Your task to perform on an android device: Open network settings Image 0: 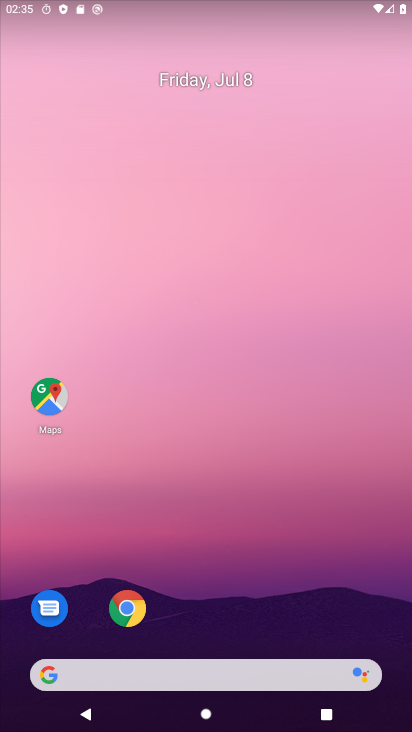
Step 0: drag from (220, 642) to (246, 176)
Your task to perform on an android device: Open network settings Image 1: 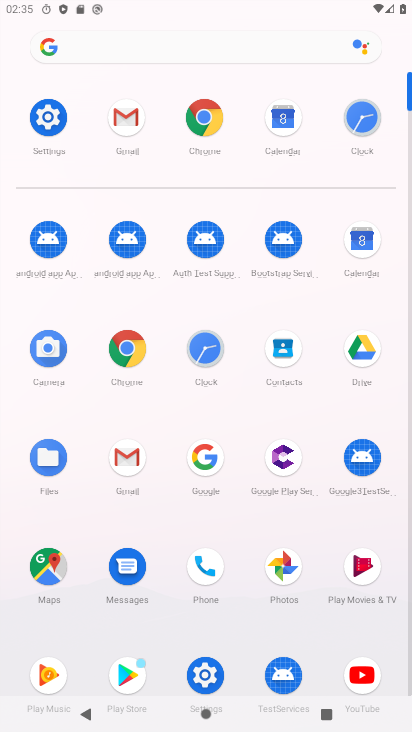
Step 1: click (57, 112)
Your task to perform on an android device: Open network settings Image 2: 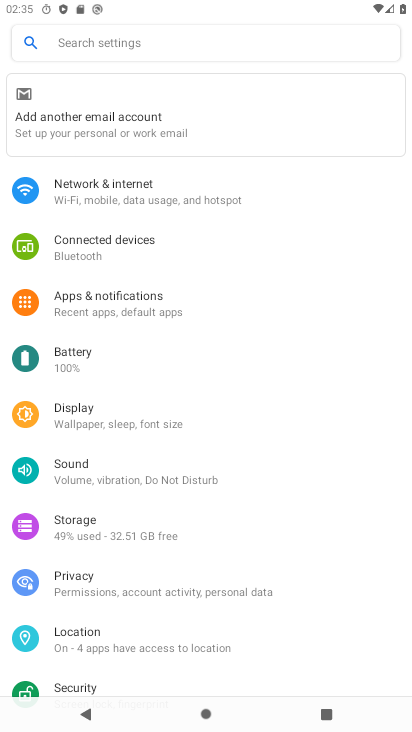
Step 2: click (124, 197)
Your task to perform on an android device: Open network settings Image 3: 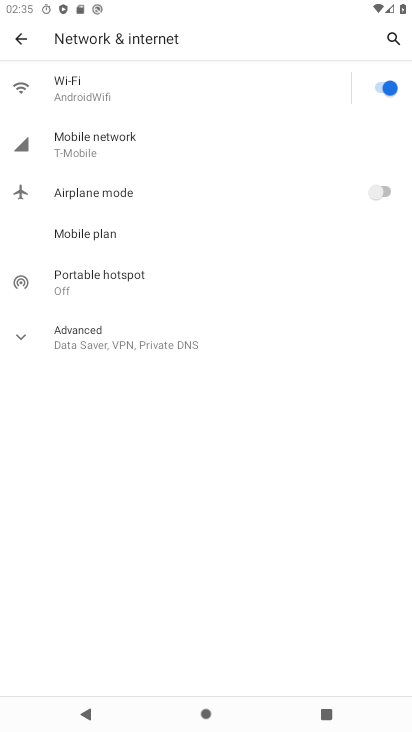
Step 3: click (124, 132)
Your task to perform on an android device: Open network settings Image 4: 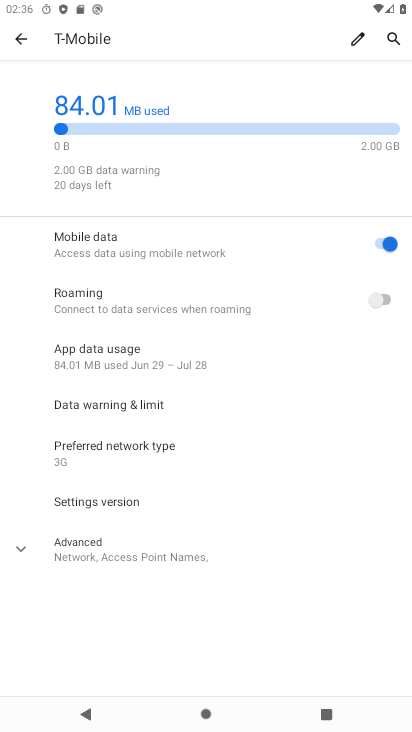
Step 4: task complete